Your task to perform on an android device: Search for seafood restaurants on Google Maps Image 0: 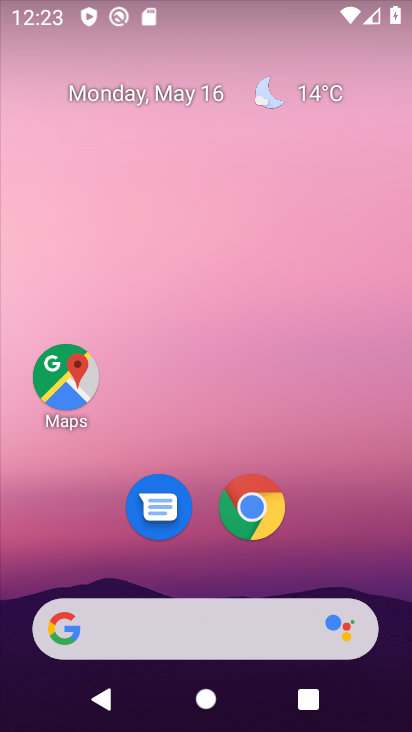
Step 0: drag from (196, 564) to (258, 169)
Your task to perform on an android device: Search for seafood restaurants on Google Maps Image 1: 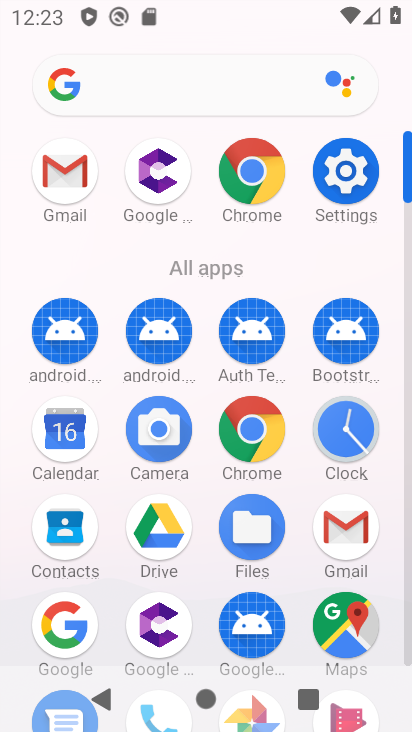
Step 1: click (340, 634)
Your task to perform on an android device: Search for seafood restaurants on Google Maps Image 2: 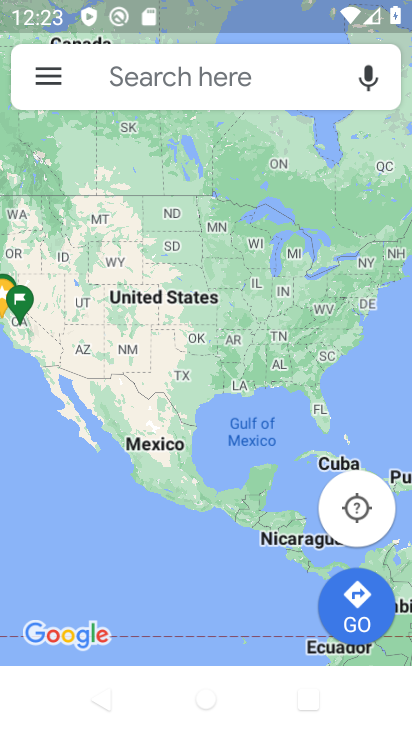
Step 2: click (235, 73)
Your task to perform on an android device: Search for seafood restaurants on Google Maps Image 3: 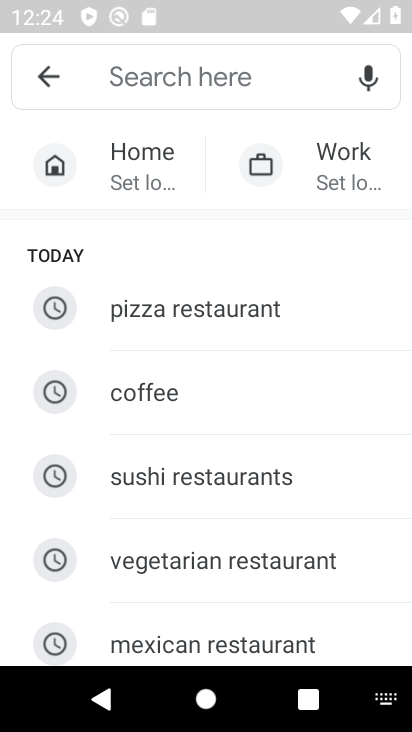
Step 3: click (173, 88)
Your task to perform on an android device: Search for seafood restaurants on Google Maps Image 4: 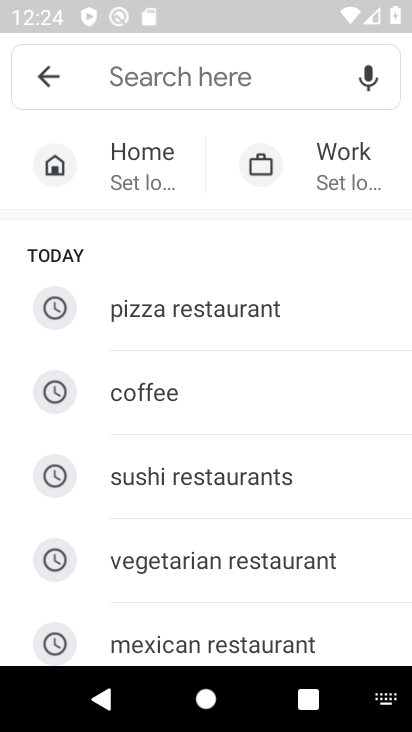
Step 4: click (176, 82)
Your task to perform on an android device: Search for seafood restaurants on Google Maps Image 5: 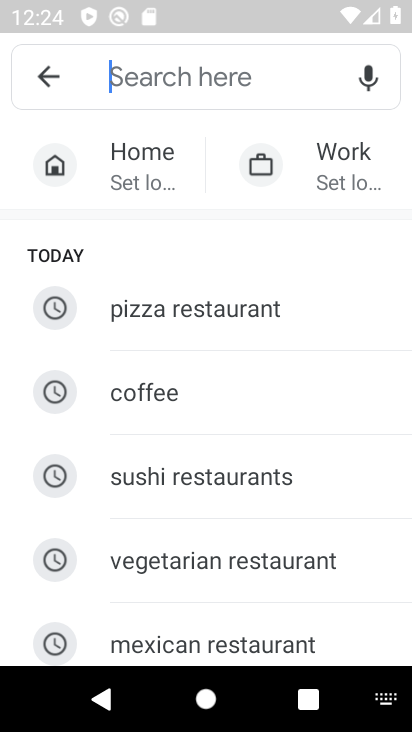
Step 5: type "seafood restaurants"
Your task to perform on an android device: Search for seafood restaurants on Google Maps Image 6: 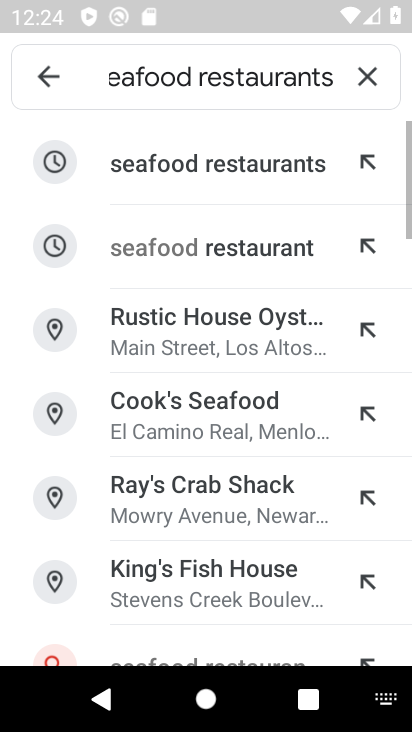
Step 6: click (251, 177)
Your task to perform on an android device: Search for seafood restaurants on Google Maps Image 7: 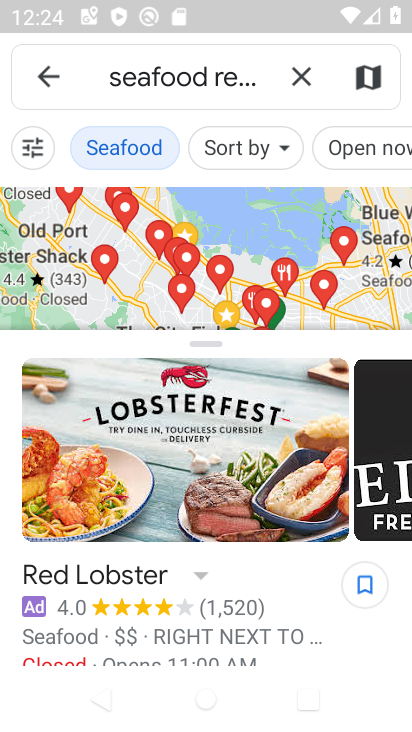
Step 7: task complete